Your task to perform on an android device: Go to display settings Image 0: 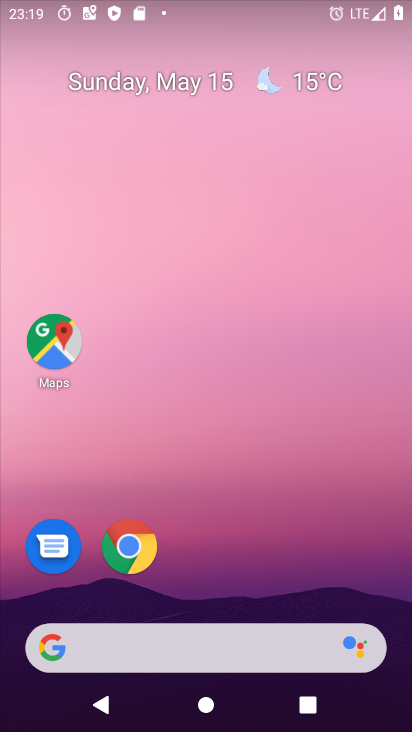
Step 0: drag from (251, 713) to (123, 15)
Your task to perform on an android device: Go to display settings Image 1: 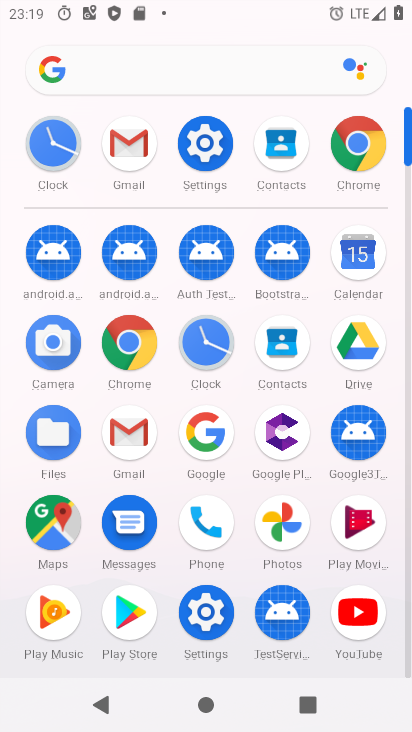
Step 1: click (206, 143)
Your task to perform on an android device: Go to display settings Image 2: 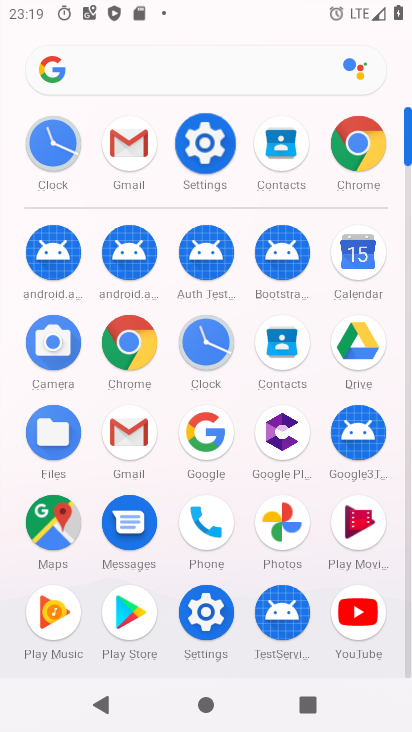
Step 2: click (206, 143)
Your task to perform on an android device: Go to display settings Image 3: 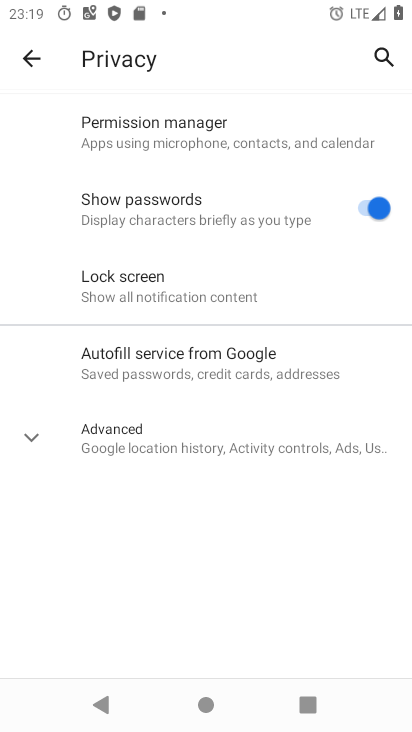
Step 3: click (38, 61)
Your task to perform on an android device: Go to display settings Image 4: 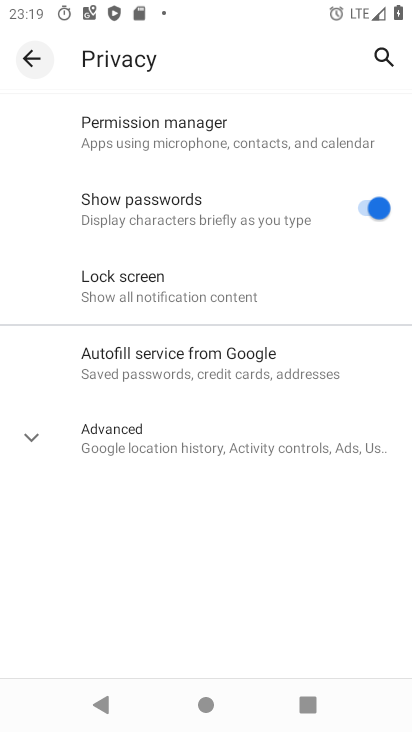
Step 4: click (38, 61)
Your task to perform on an android device: Go to display settings Image 5: 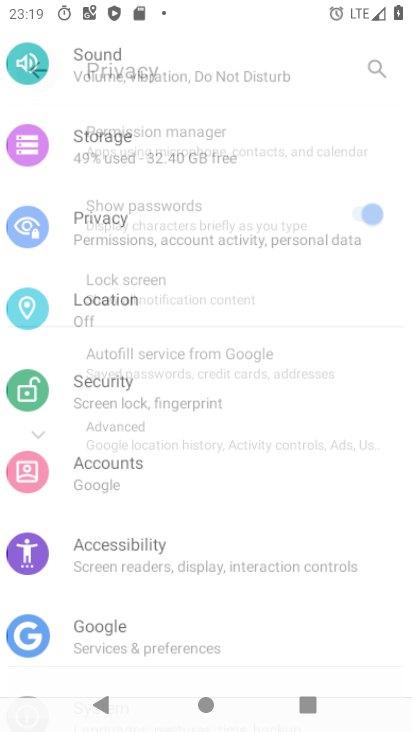
Step 5: click (38, 61)
Your task to perform on an android device: Go to display settings Image 6: 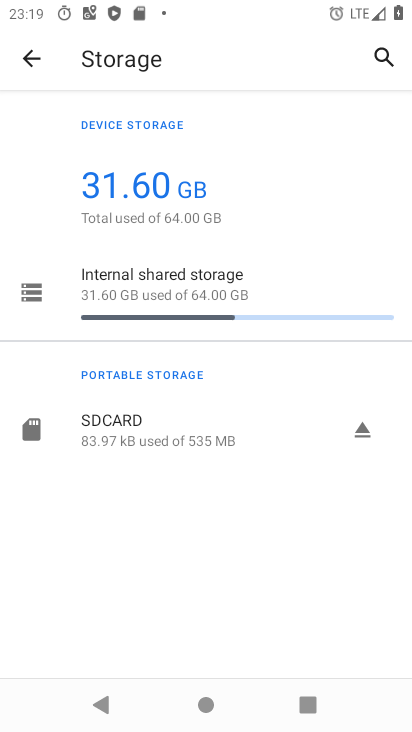
Step 6: click (30, 60)
Your task to perform on an android device: Go to display settings Image 7: 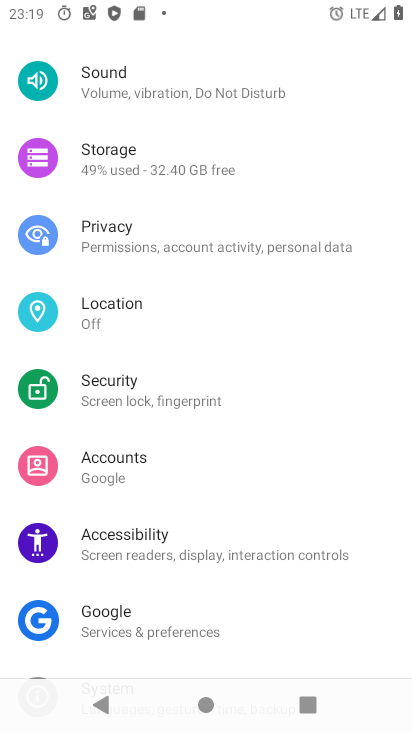
Step 7: drag from (117, 434) to (91, 165)
Your task to perform on an android device: Go to display settings Image 8: 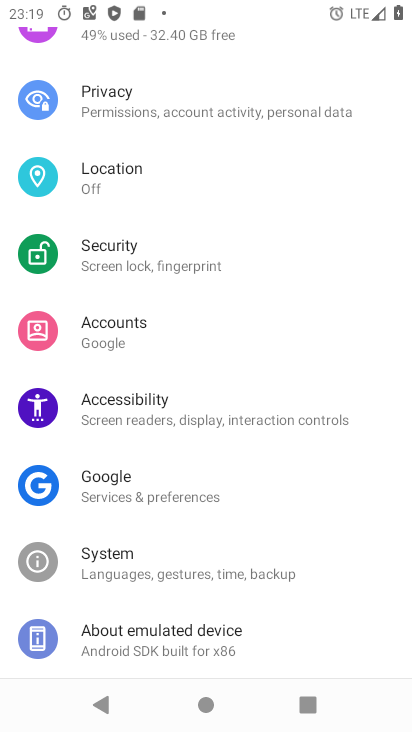
Step 8: drag from (135, 143) to (149, 587)
Your task to perform on an android device: Go to display settings Image 9: 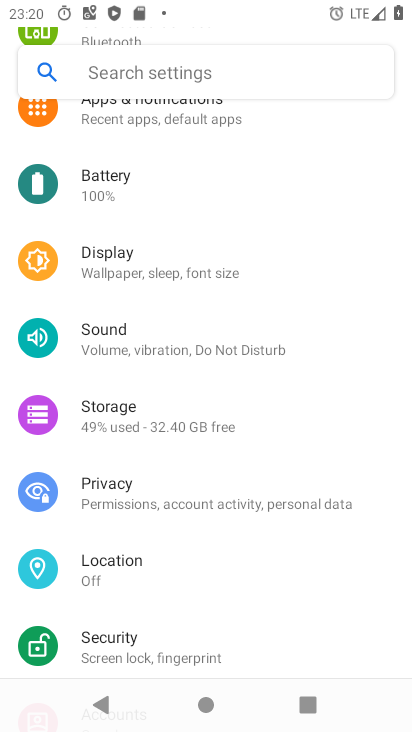
Step 9: click (111, 253)
Your task to perform on an android device: Go to display settings Image 10: 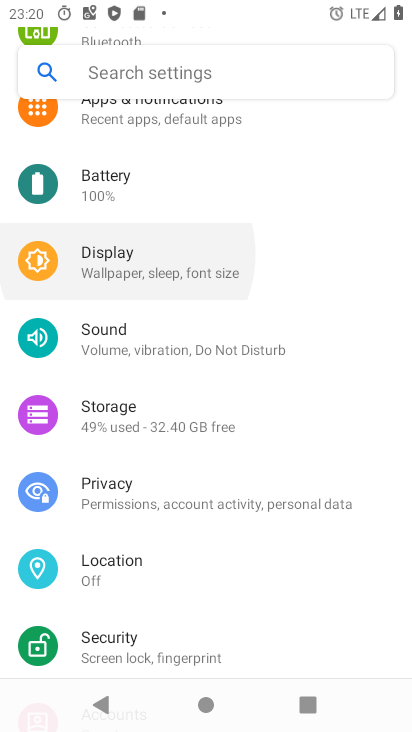
Step 10: click (115, 255)
Your task to perform on an android device: Go to display settings Image 11: 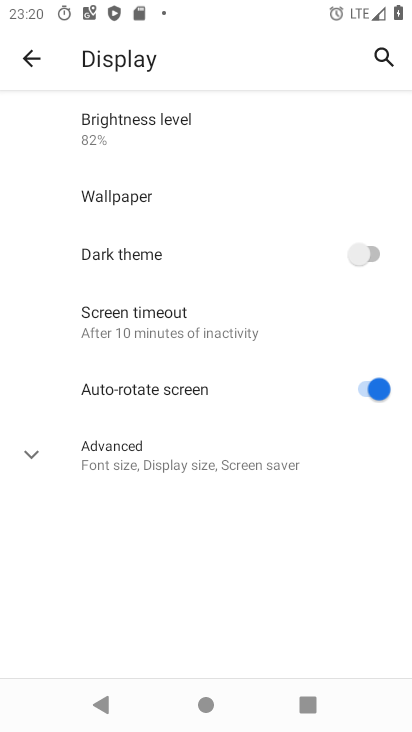
Step 11: task complete